Your task to perform on an android device: Show me recent news Image 0: 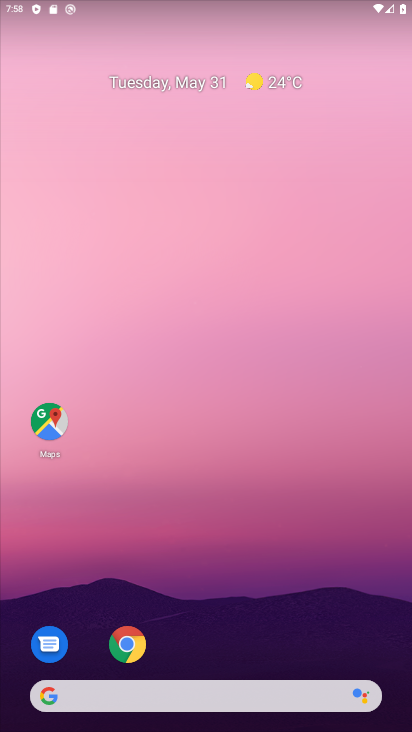
Step 0: click (148, 642)
Your task to perform on an android device: Show me recent news Image 1: 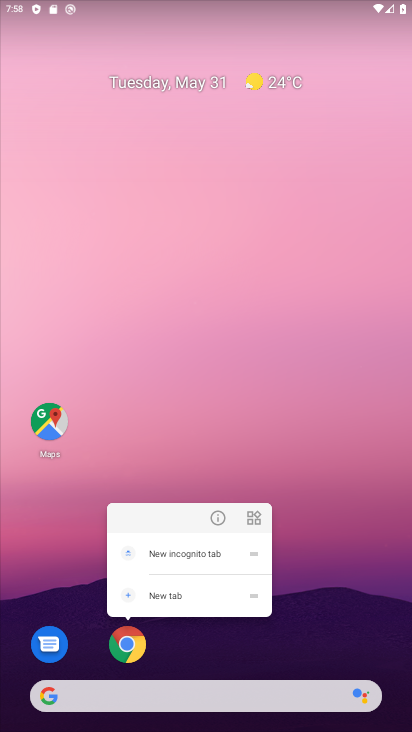
Step 1: click (133, 640)
Your task to perform on an android device: Show me recent news Image 2: 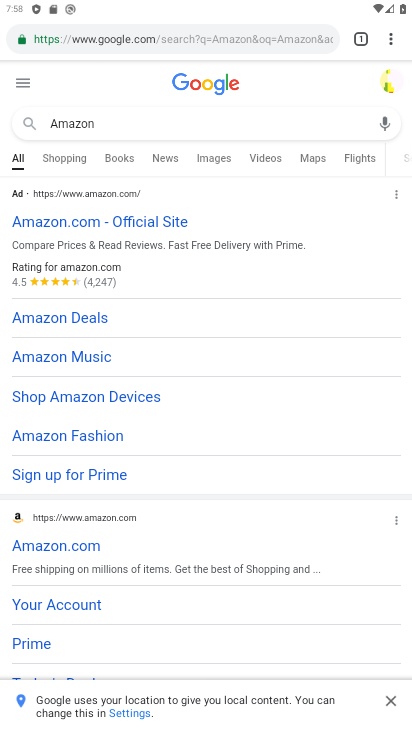
Step 2: click (140, 38)
Your task to perform on an android device: Show me recent news Image 3: 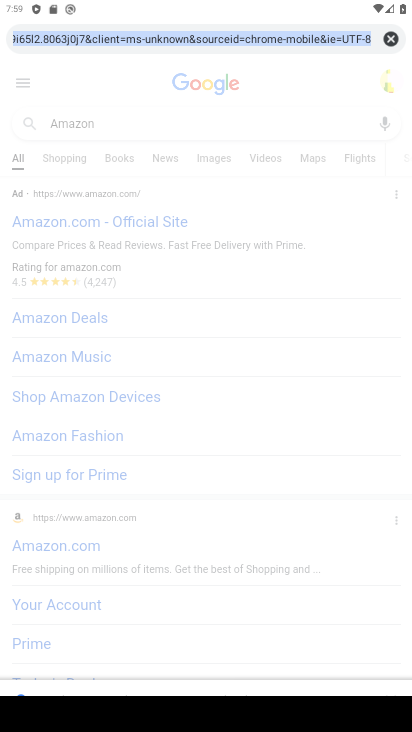
Step 3: type "recent news"
Your task to perform on an android device: Show me recent news Image 4: 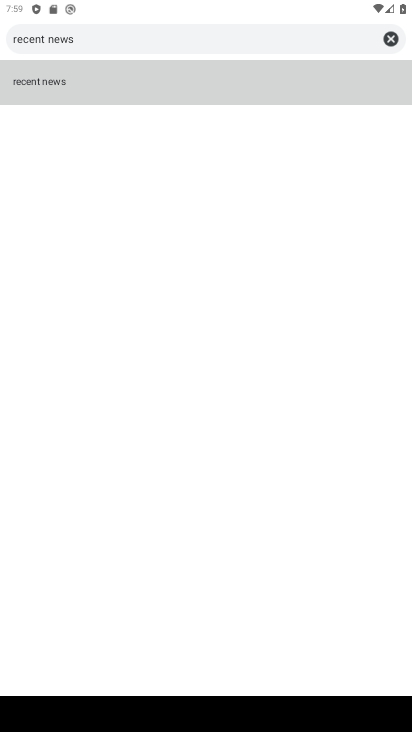
Step 4: click (227, 88)
Your task to perform on an android device: Show me recent news Image 5: 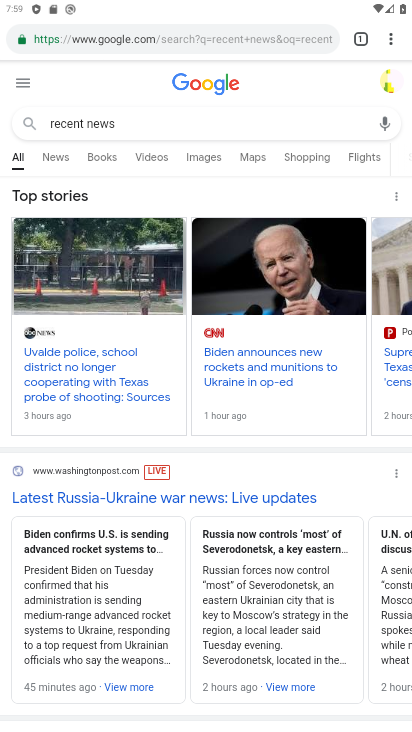
Step 5: task complete